Your task to perform on an android device: turn off data saver in the chrome app Image 0: 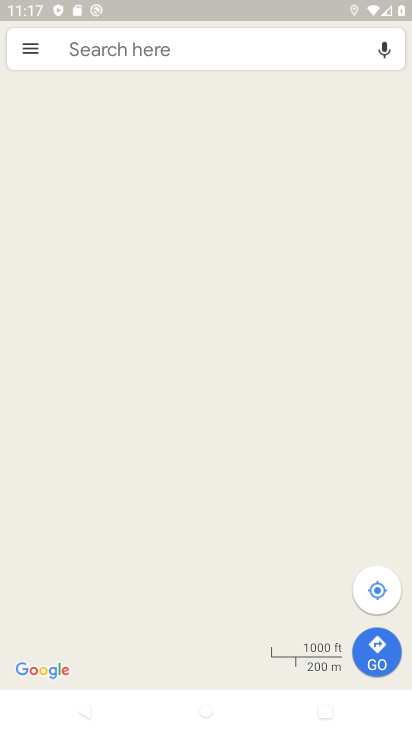
Step 0: press home button
Your task to perform on an android device: turn off data saver in the chrome app Image 1: 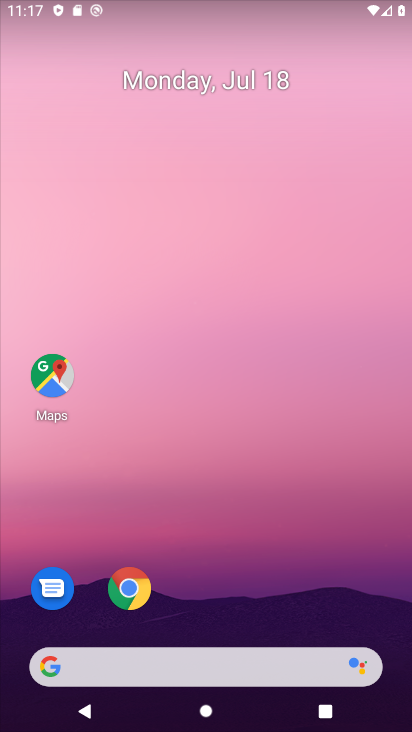
Step 1: drag from (264, 625) to (230, 137)
Your task to perform on an android device: turn off data saver in the chrome app Image 2: 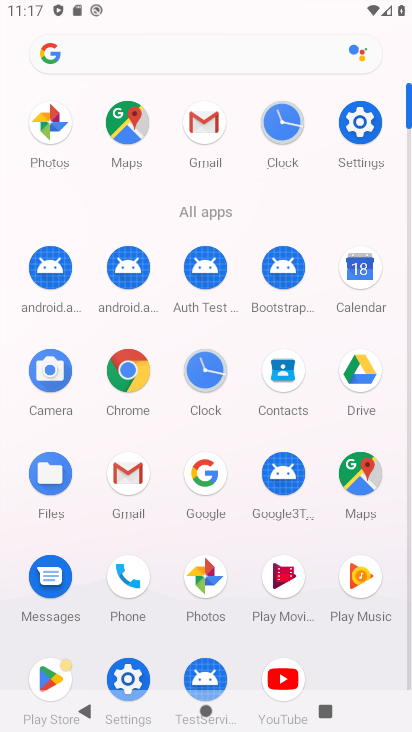
Step 2: click (122, 365)
Your task to perform on an android device: turn off data saver in the chrome app Image 3: 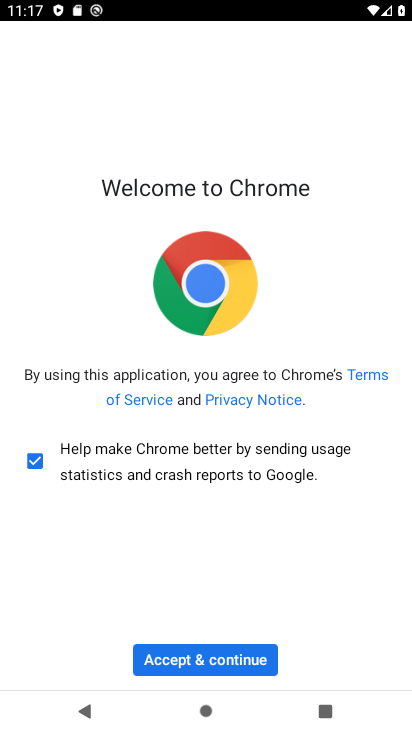
Step 3: click (244, 650)
Your task to perform on an android device: turn off data saver in the chrome app Image 4: 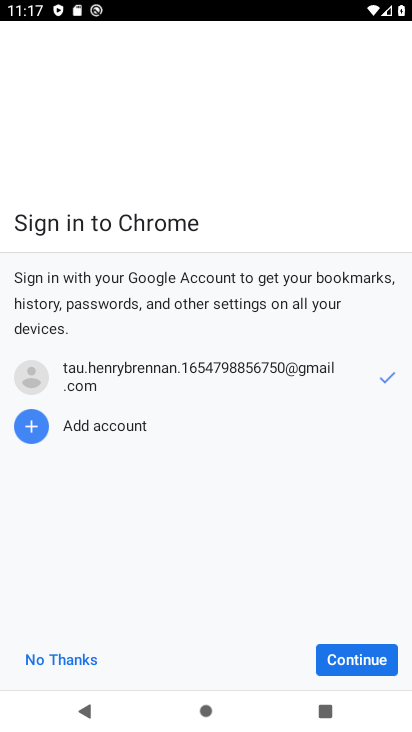
Step 4: click (24, 665)
Your task to perform on an android device: turn off data saver in the chrome app Image 5: 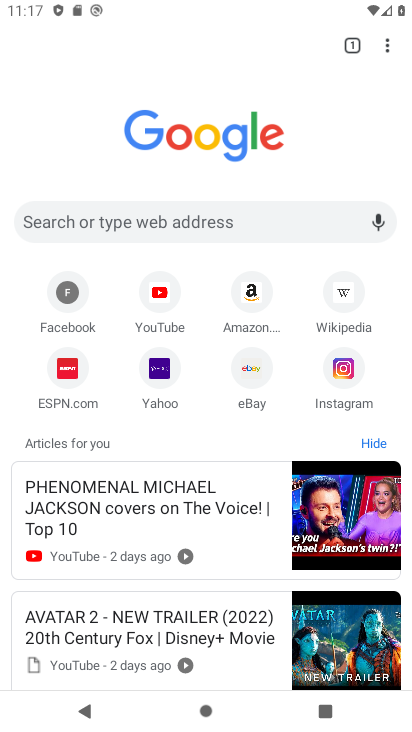
Step 5: drag from (381, 40) to (254, 382)
Your task to perform on an android device: turn off data saver in the chrome app Image 6: 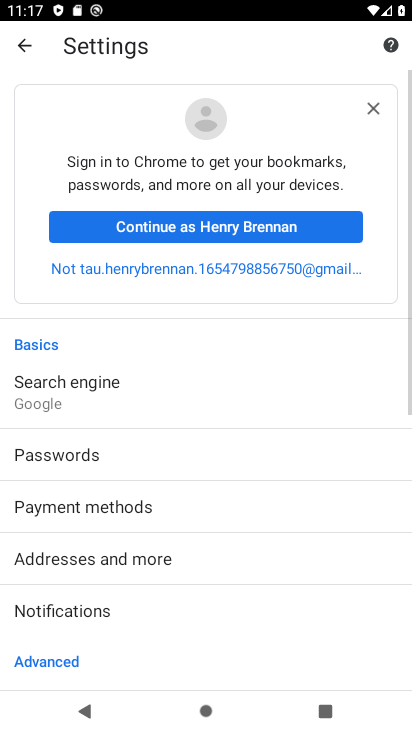
Step 6: drag from (186, 561) to (265, 143)
Your task to perform on an android device: turn off data saver in the chrome app Image 7: 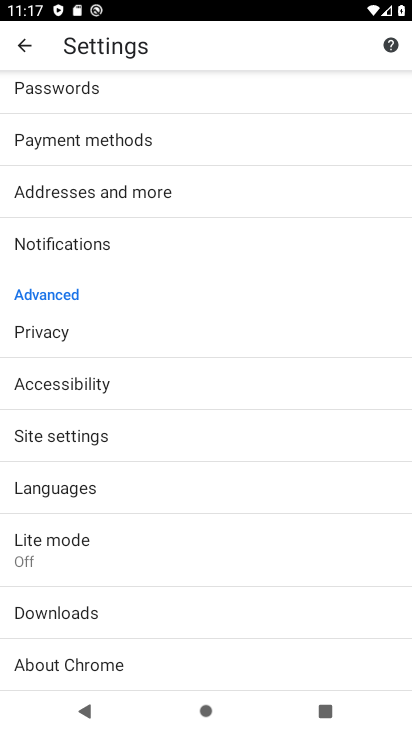
Step 7: click (104, 544)
Your task to perform on an android device: turn off data saver in the chrome app Image 8: 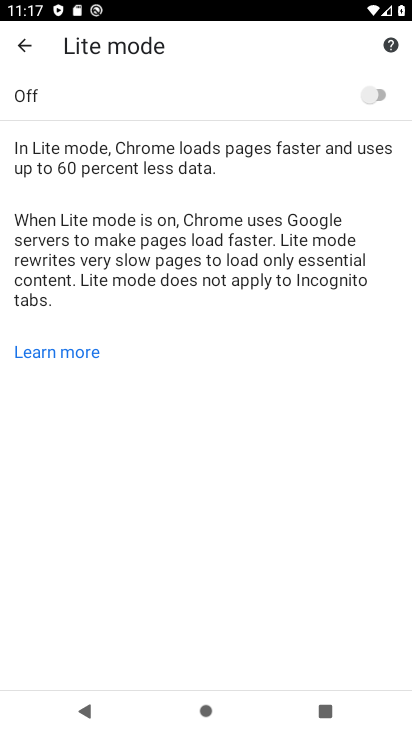
Step 8: task complete